Your task to perform on an android device: open app "Viber Messenger" (install if not already installed), go to login, and select forgot password Image 0: 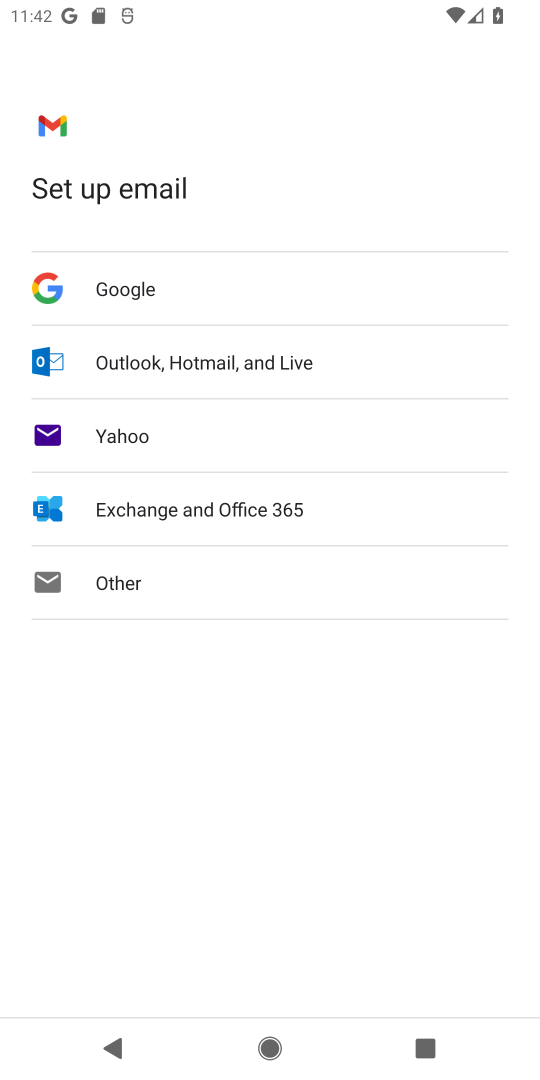
Step 0: press home button
Your task to perform on an android device: open app "Viber Messenger" (install if not already installed), go to login, and select forgot password Image 1: 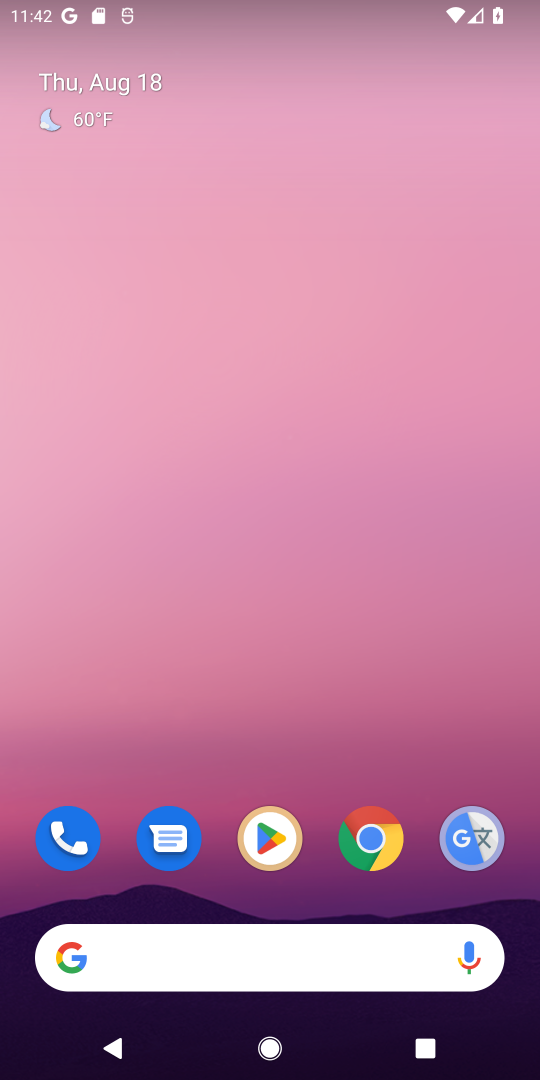
Step 1: click (265, 825)
Your task to perform on an android device: open app "Viber Messenger" (install if not already installed), go to login, and select forgot password Image 2: 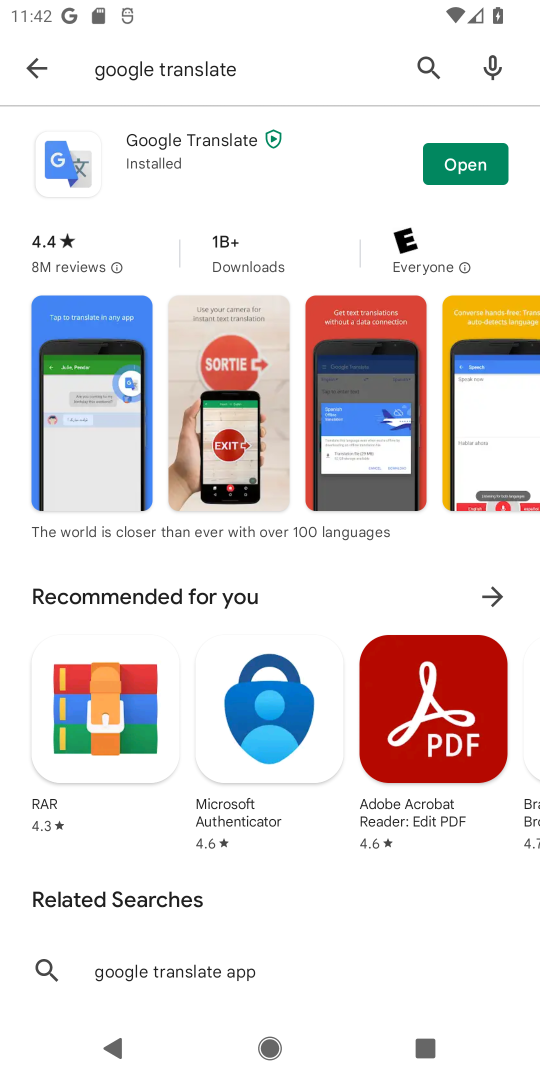
Step 2: click (412, 60)
Your task to perform on an android device: open app "Viber Messenger" (install if not already installed), go to login, and select forgot password Image 3: 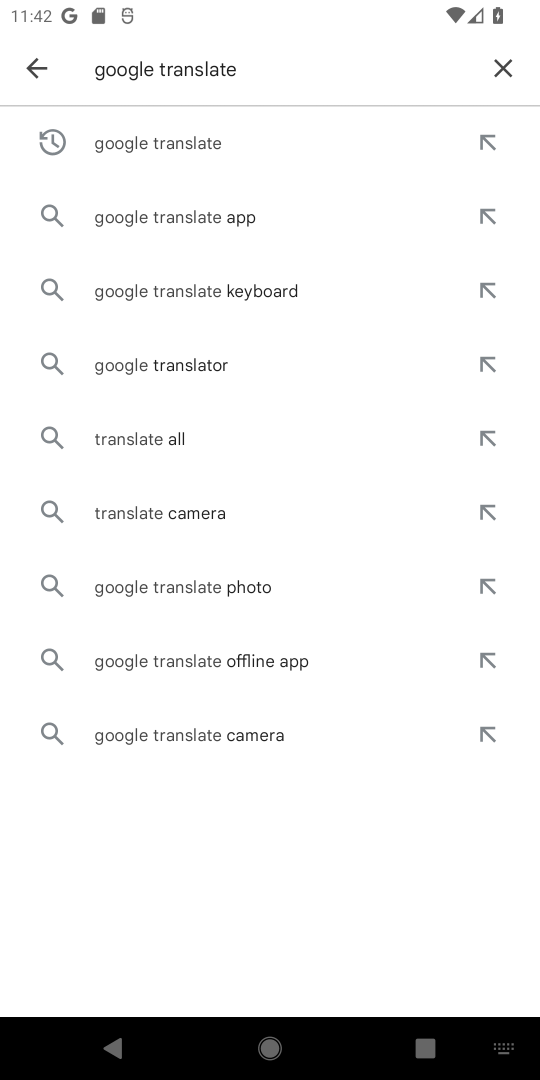
Step 3: click (495, 72)
Your task to perform on an android device: open app "Viber Messenger" (install if not already installed), go to login, and select forgot password Image 4: 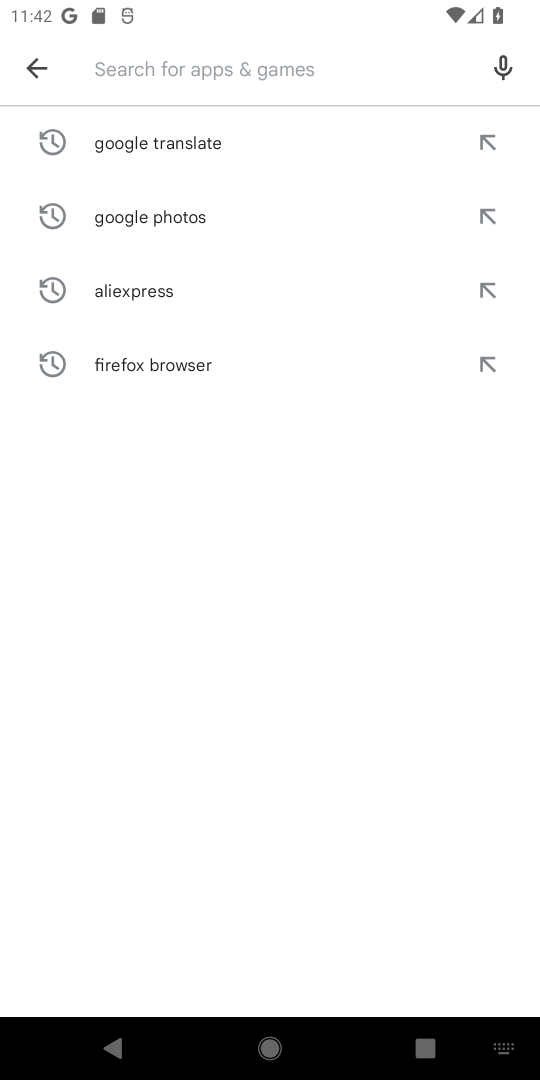
Step 4: type "Viber Messenger"
Your task to perform on an android device: open app "Viber Messenger" (install if not already installed), go to login, and select forgot password Image 5: 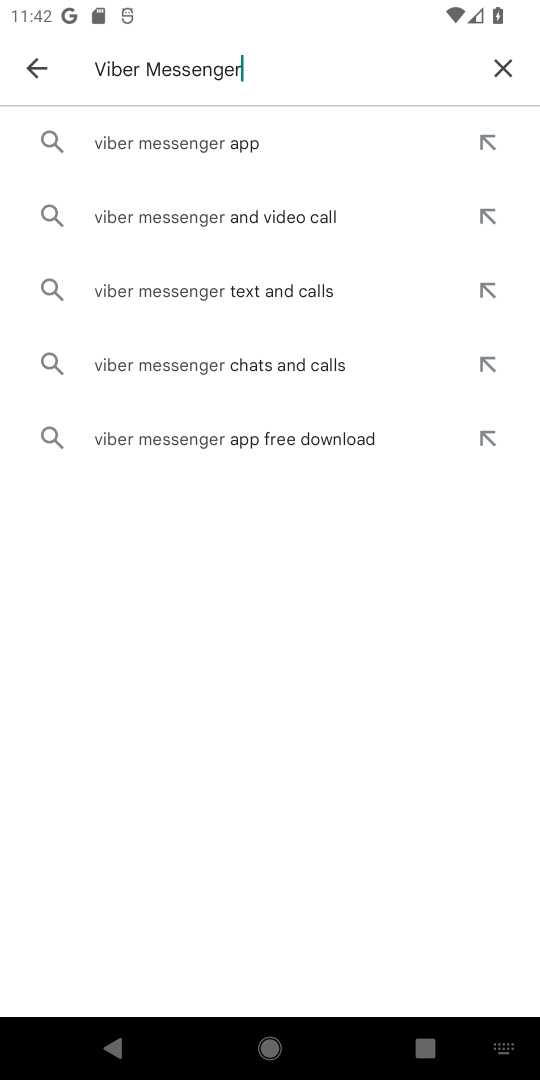
Step 5: click (212, 158)
Your task to perform on an android device: open app "Viber Messenger" (install if not already installed), go to login, and select forgot password Image 6: 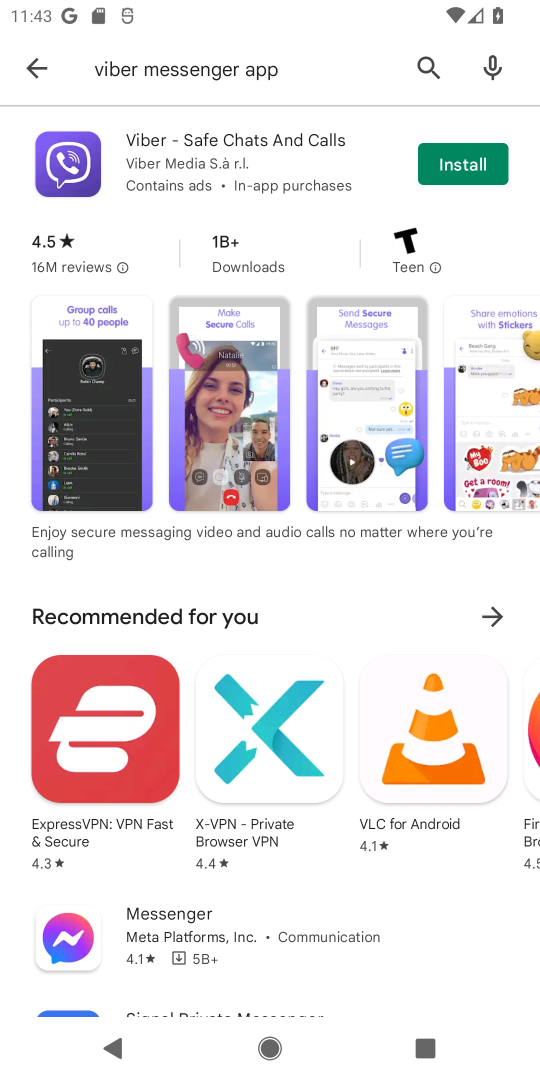
Step 6: click (454, 169)
Your task to perform on an android device: open app "Viber Messenger" (install if not already installed), go to login, and select forgot password Image 7: 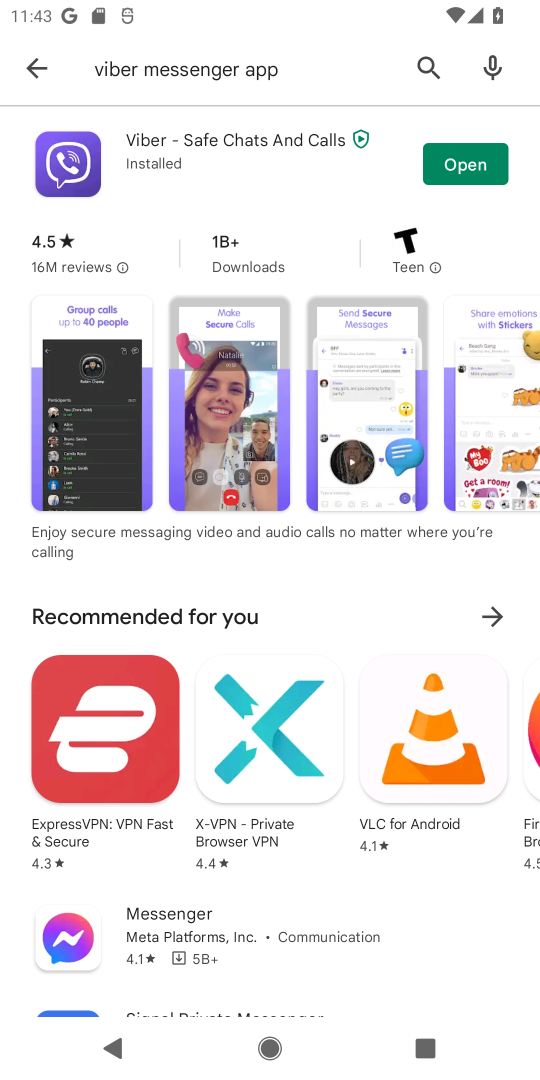
Step 7: click (440, 172)
Your task to perform on an android device: open app "Viber Messenger" (install if not already installed), go to login, and select forgot password Image 8: 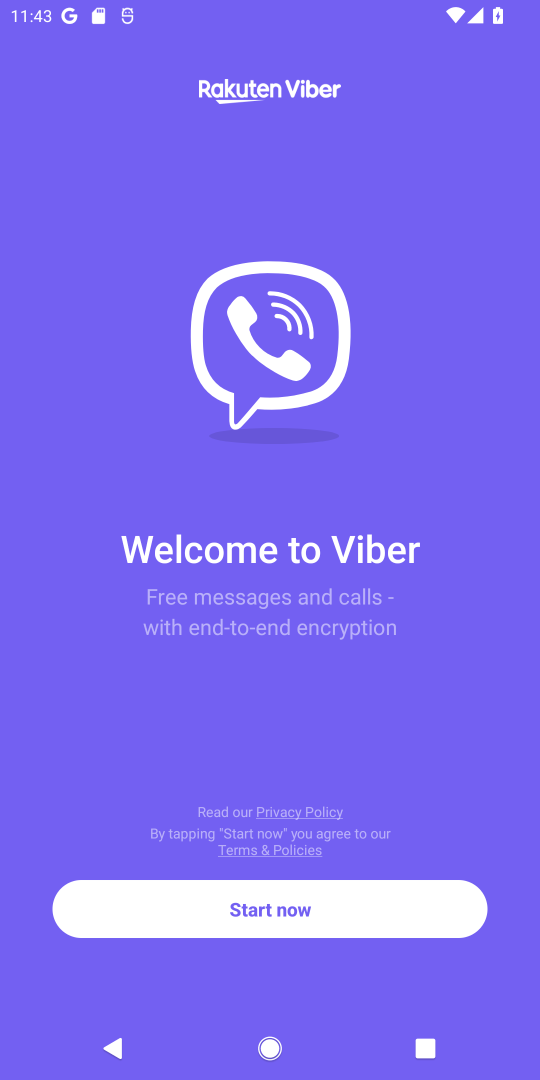
Step 8: task complete